Your task to perform on an android device: toggle priority inbox in the gmail app Image 0: 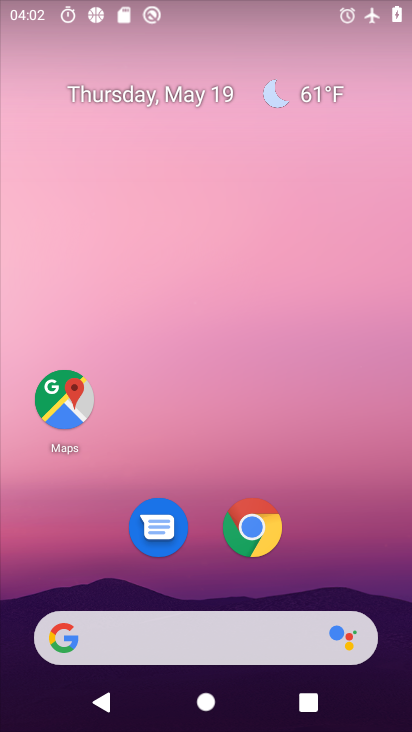
Step 0: drag from (197, 548) to (259, 158)
Your task to perform on an android device: toggle priority inbox in the gmail app Image 1: 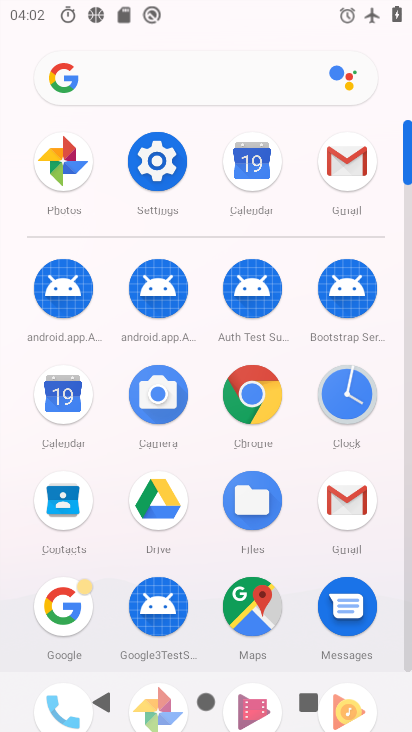
Step 1: click (329, 164)
Your task to perform on an android device: toggle priority inbox in the gmail app Image 2: 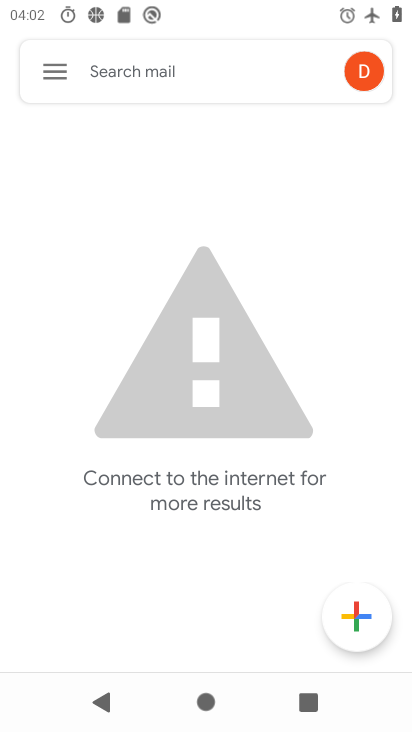
Step 2: click (48, 71)
Your task to perform on an android device: toggle priority inbox in the gmail app Image 3: 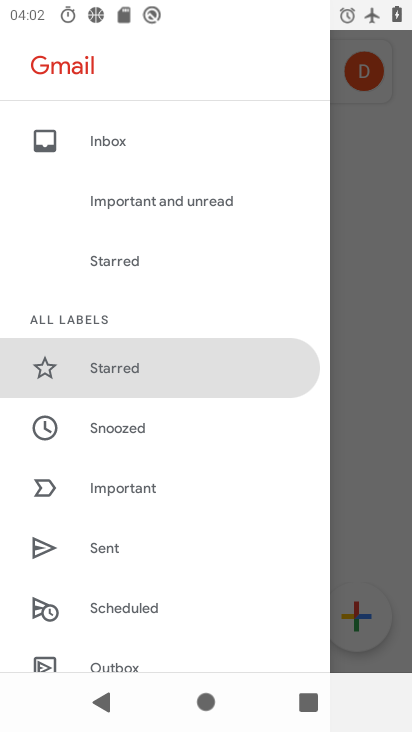
Step 3: drag from (222, 630) to (298, 152)
Your task to perform on an android device: toggle priority inbox in the gmail app Image 4: 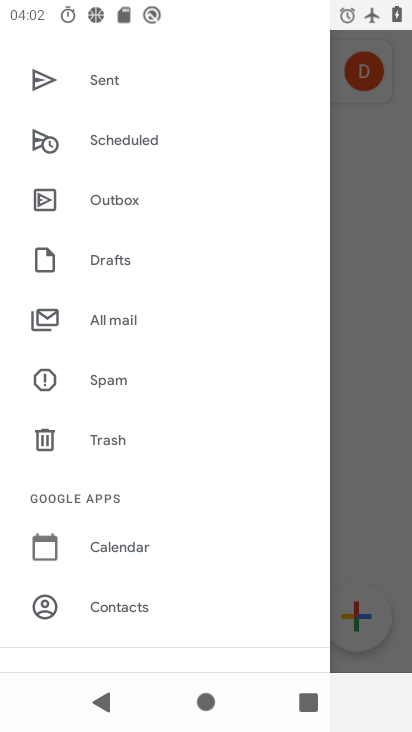
Step 4: drag from (143, 581) to (251, 221)
Your task to perform on an android device: toggle priority inbox in the gmail app Image 5: 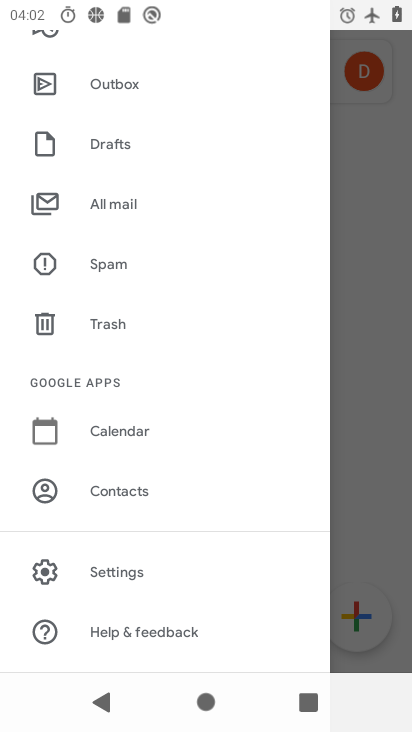
Step 5: click (121, 572)
Your task to perform on an android device: toggle priority inbox in the gmail app Image 6: 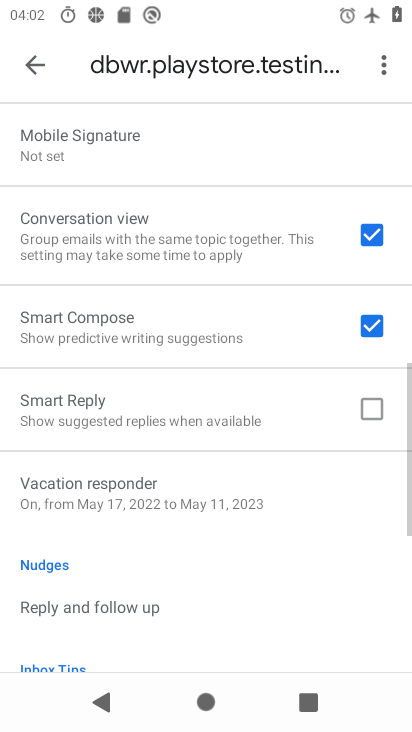
Step 6: drag from (186, 179) to (171, 721)
Your task to perform on an android device: toggle priority inbox in the gmail app Image 7: 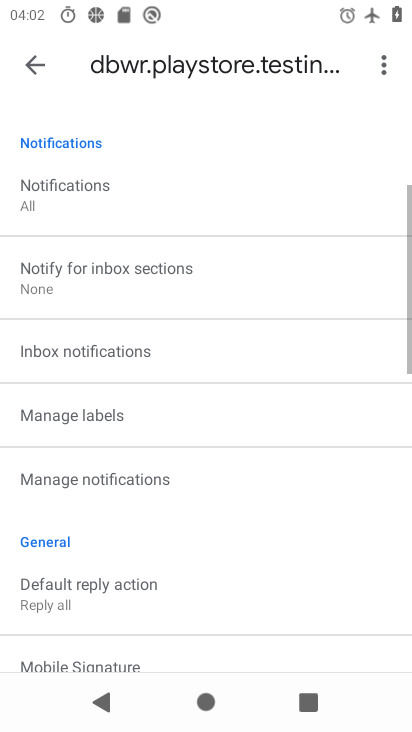
Step 7: drag from (161, 247) to (161, 731)
Your task to perform on an android device: toggle priority inbox in the gmail app Image 8: 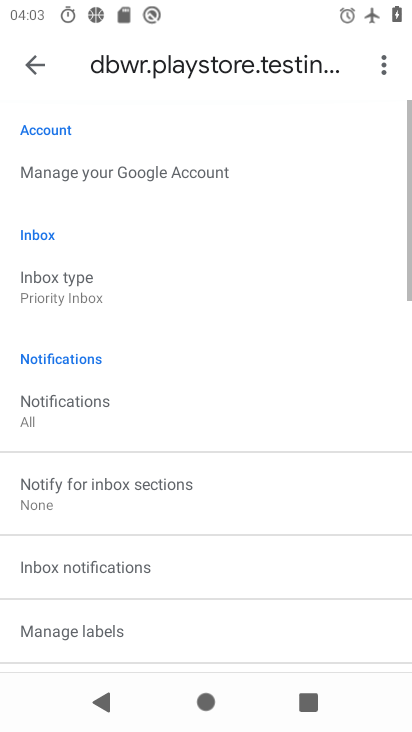
Step 8: click (77, 293)
Your task to perform on an android device: toggle priority inbox in the gmail app Image 9: 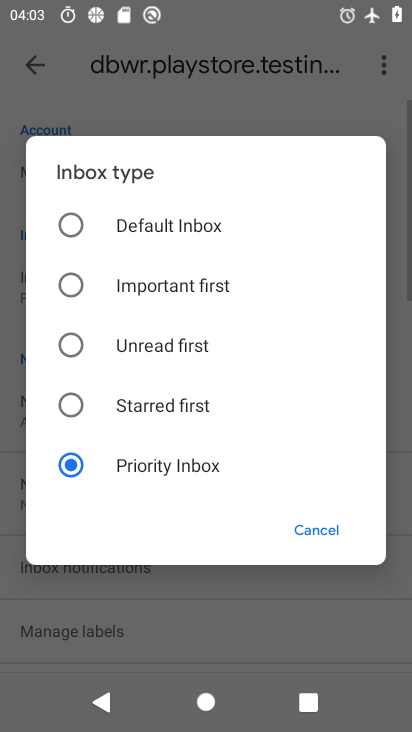
Step 9: click (114, 481)
Your task to perform on an android device: toggle priority inbox in the gmail app Image 10: 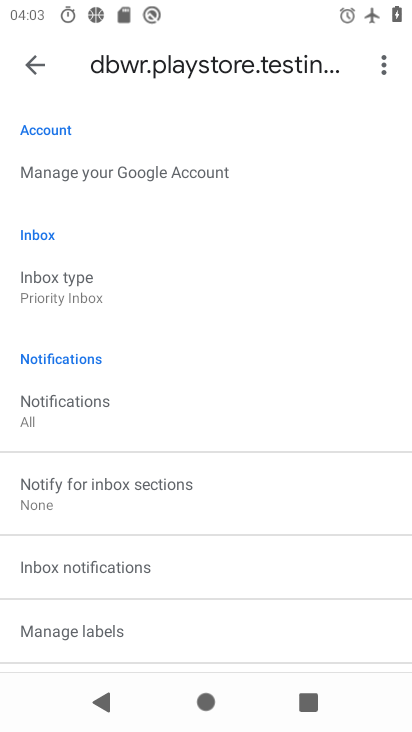
Step 10: task complete